Your task to perform on an android device: open app "Life360: Find Family & Friends" (install if not already installed) and enter user name: "gusts@gmail.com" and password: "assurers" Image 0: 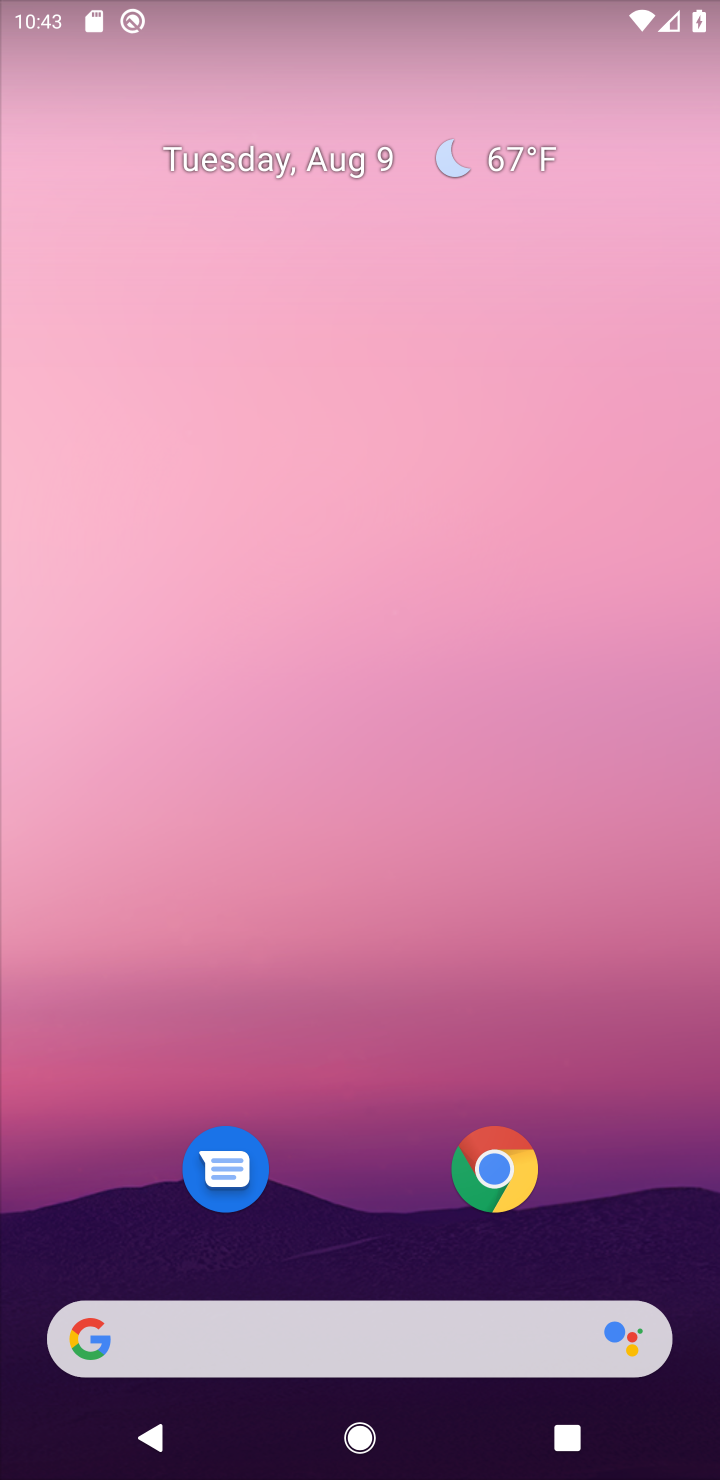
Step 0: press home button
Your task to perform on an android device: open app "Life360: Find Family & Friends" (install if not already installed) and enter user name: "gusts@gmail.com" and password: "assurers" Image 1: 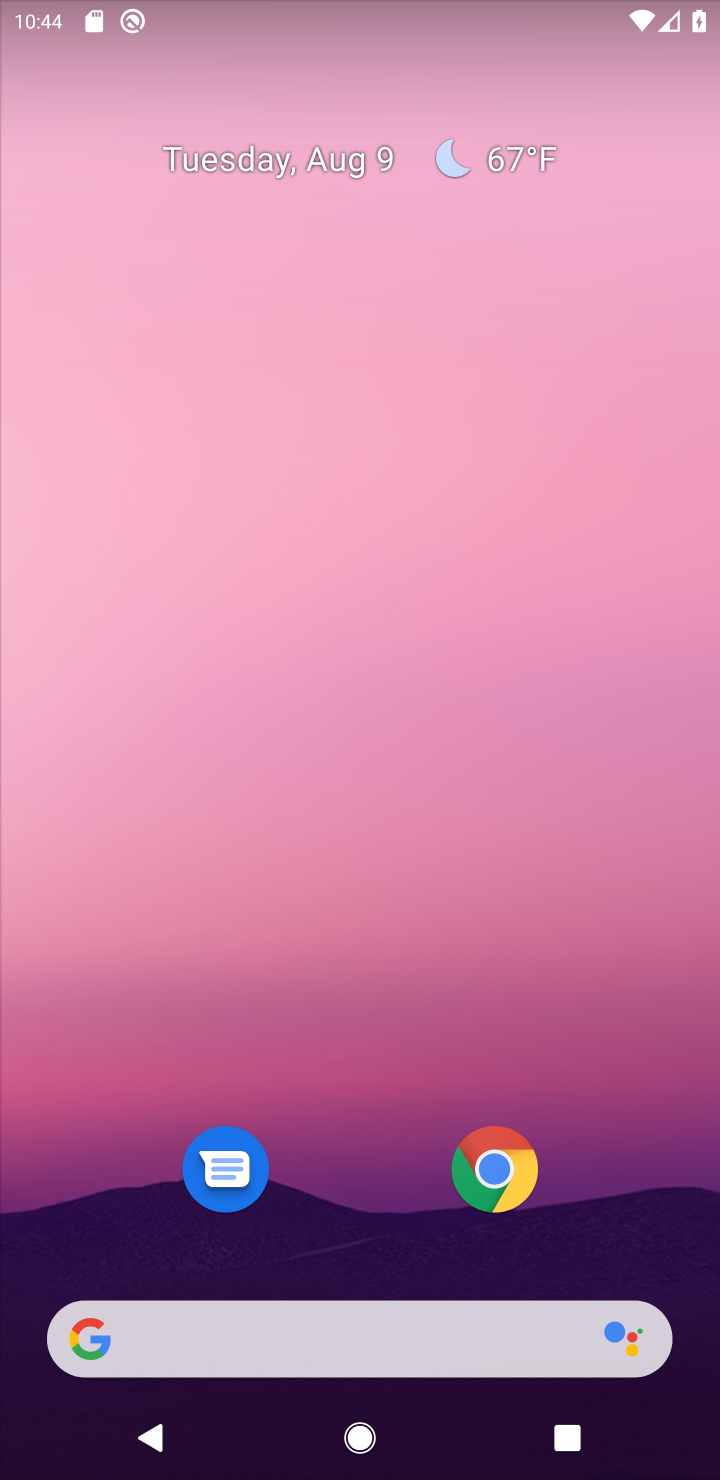
Step 1: drag from (366, 1216) to (463, 91)
Your task to perform on an android device: open app "Life360: Find Family & Friends" (install if not already installed) and enter user name: "gusts@gmail.com" and password: "assurers" Image 2: 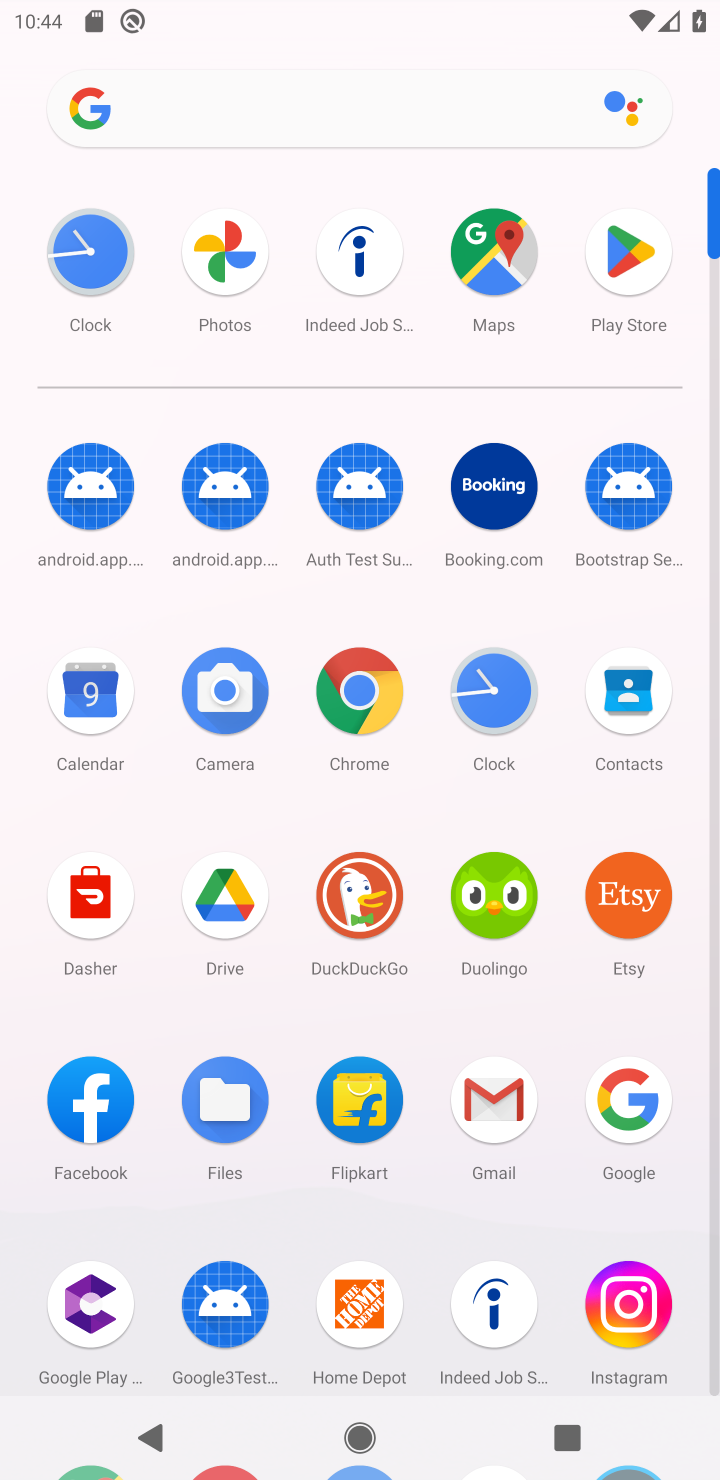
Step 2: click (643, 256)
Your task to perform on an android device: open app "Life360: Find Family & Friends" (install if not already installed) and enter user name: "gusts@gmail.com" and password: "assurers" Image 3: 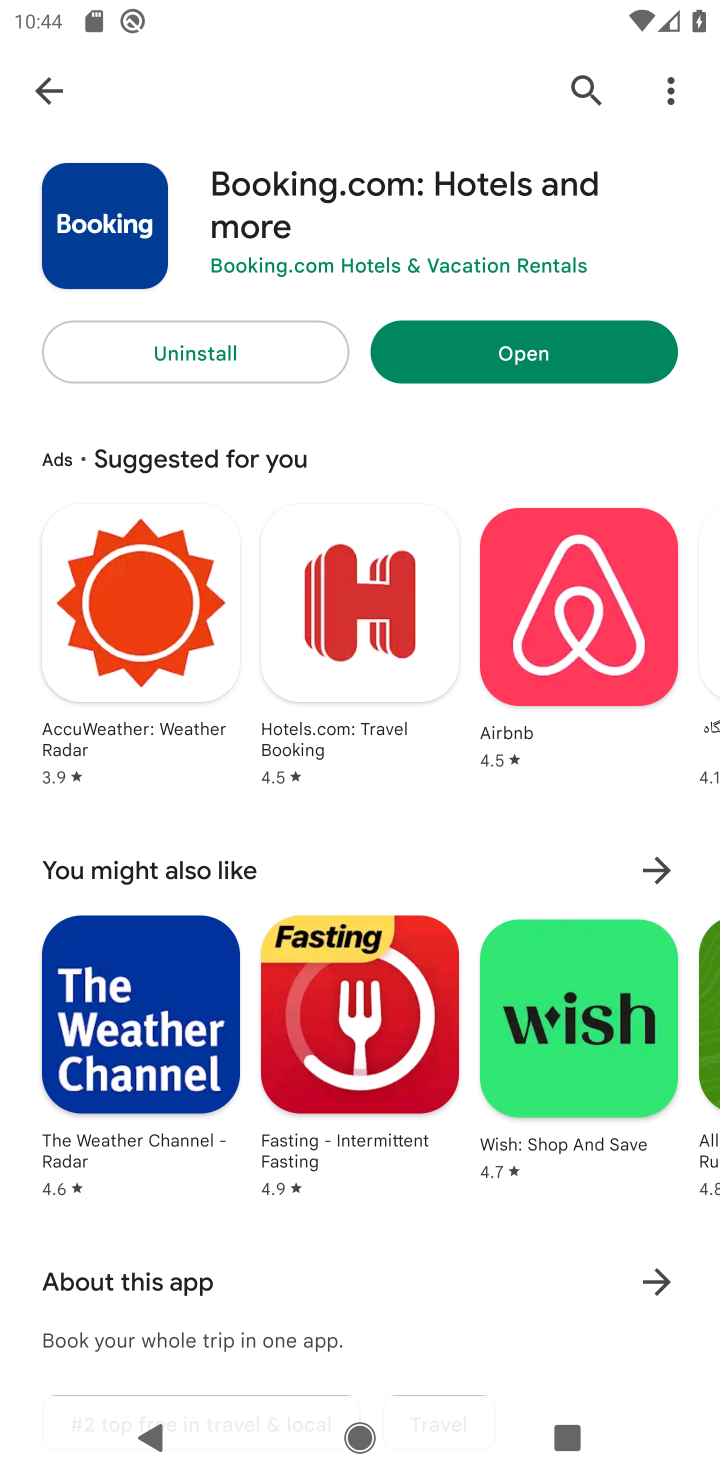
Step 3: click (588, 81)
Your task to perform on an android device: open app "Life360: Find Family & Friends" (install if not already installed) and enter user name: "gusts@gmail.com" and password: "assurers" Image 4: 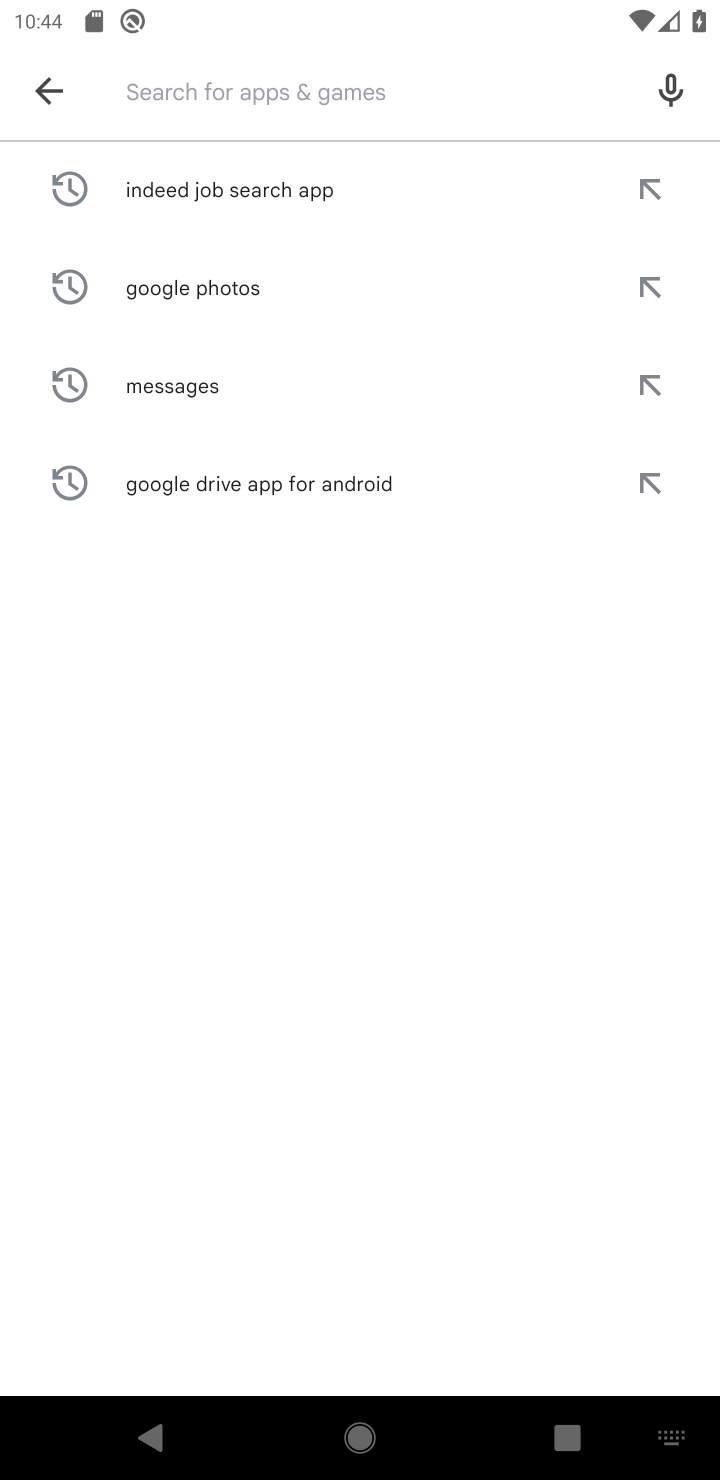
Step 4: click (355, 89)
Your task to perform on an android device: open app "Life360: Find Family & Friends" (install if not already installed) and enter user name: "gusts@gmail.com" and password: "assurers" Image 5: 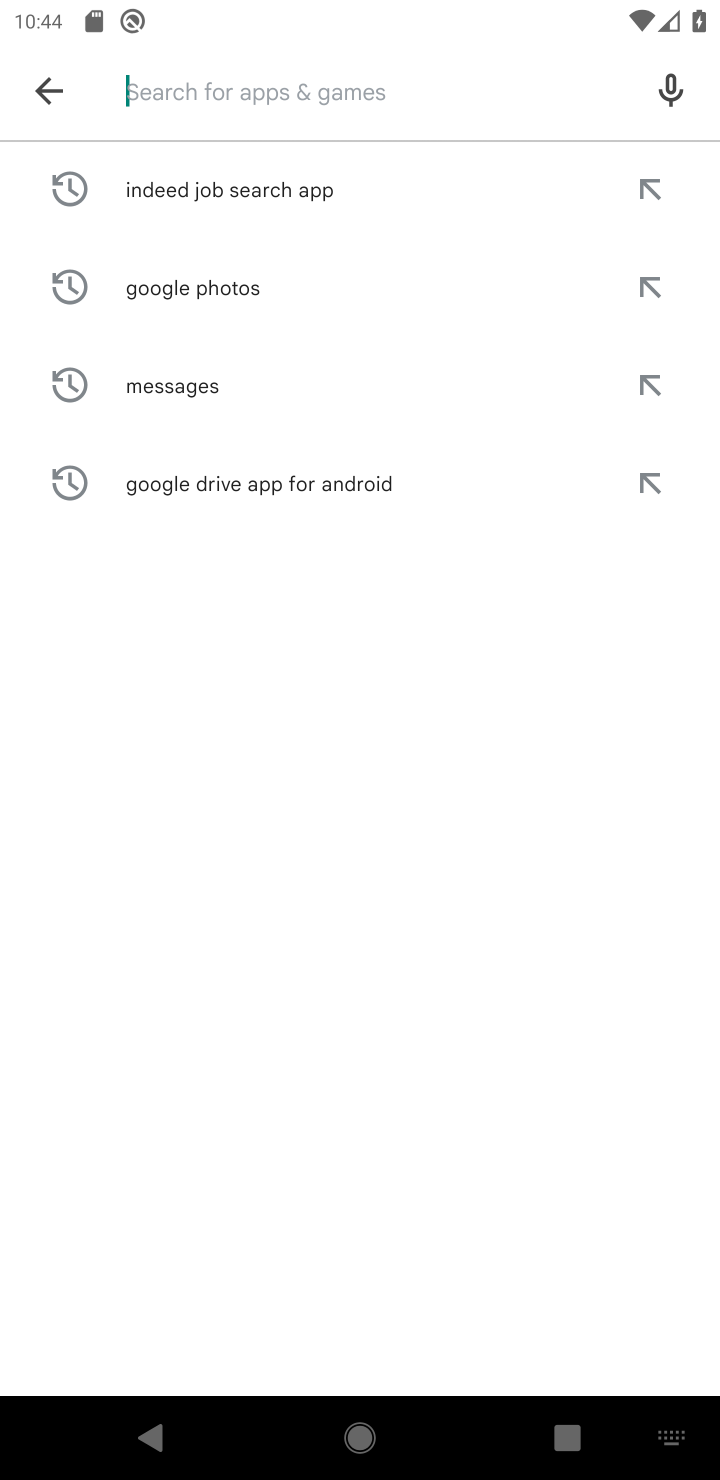
Step 5: type "Life360: Find Family & Friends"
Your task to perform on an android device: open app "Life360: Find Family & Friends" (install if not already installed) and enter user name: "gusts@gmail.com" and password: "assurers" Image 6: 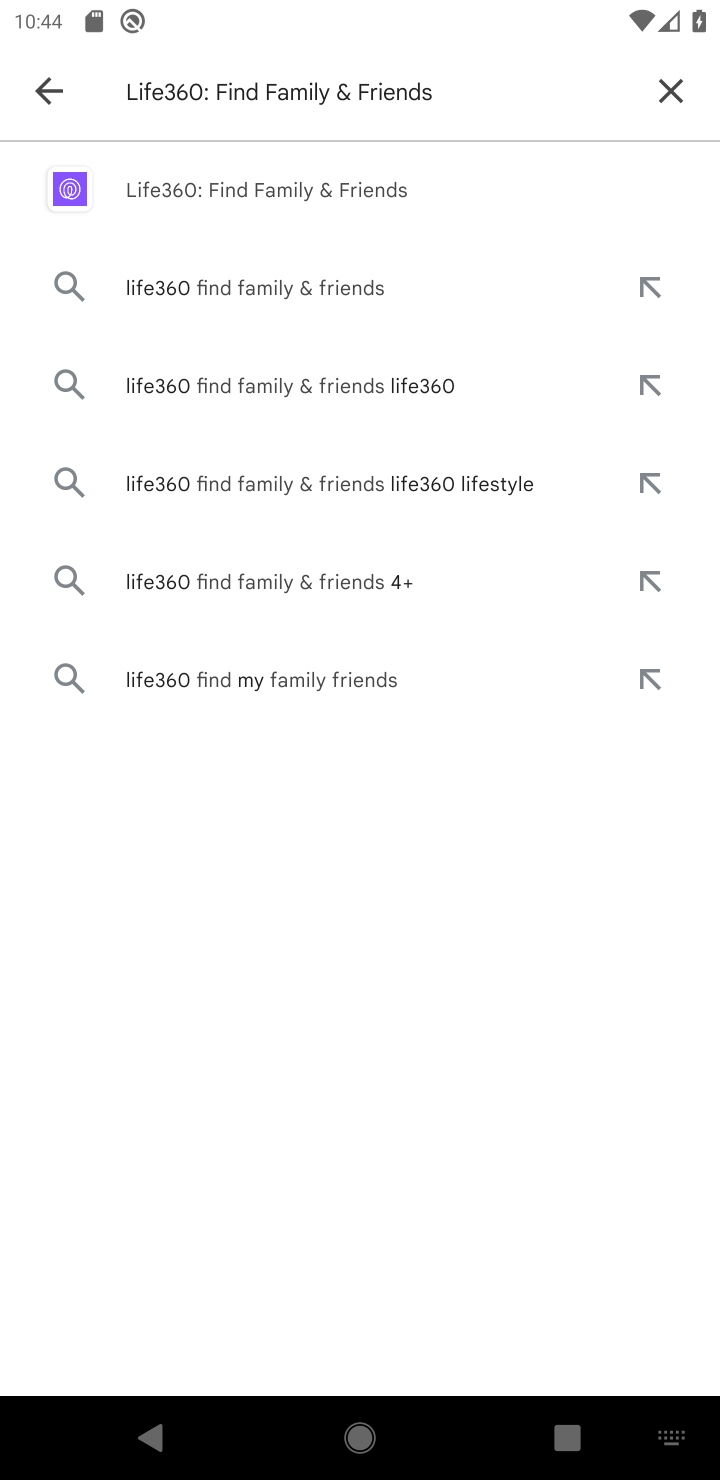
Step 6: click (415, 199)
Your task to perform on an android device: open app "Life360: Find Family & Friends" (install if not already installed) and enter user name: "gusts@gmail.com" and password: "assurers" Image 7: 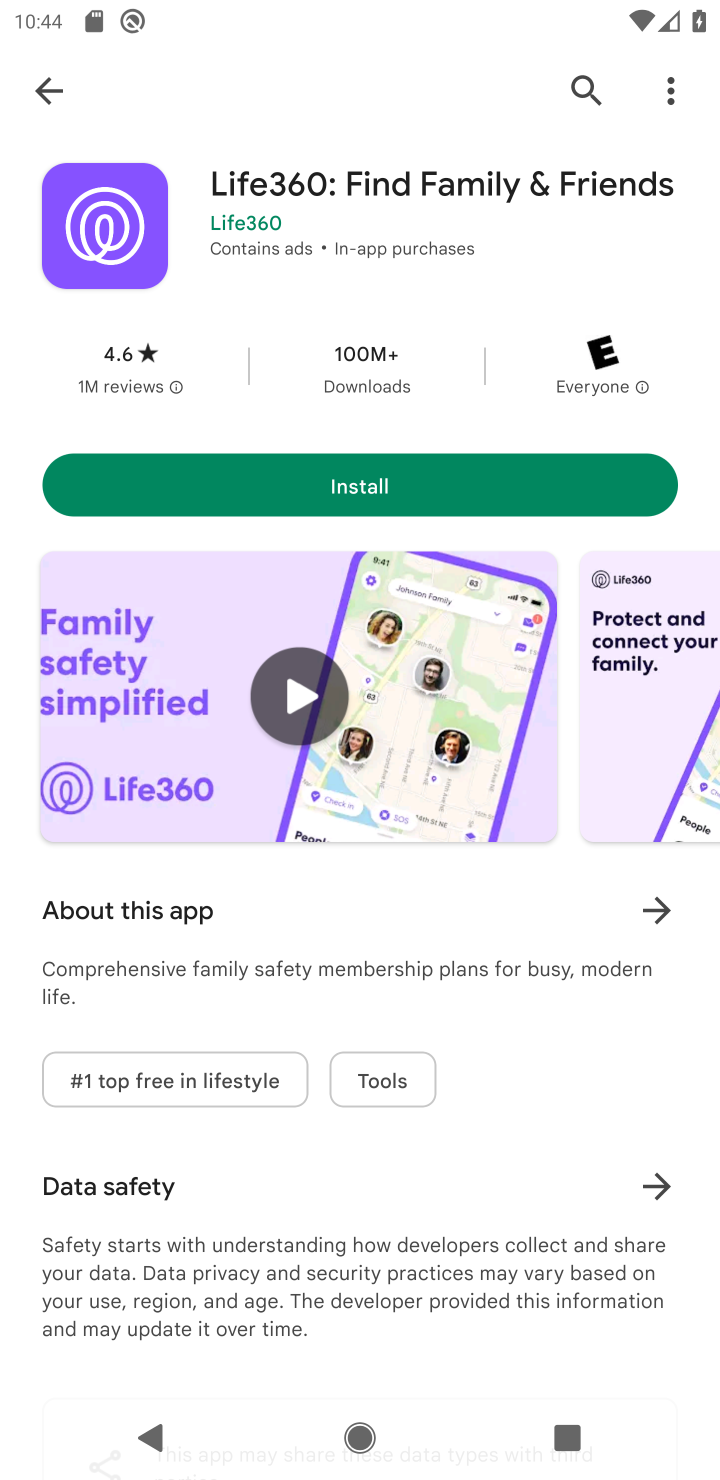
Step 7: click (403, 485)
Your task to perform on an android device: open app "Life360: Find Family & Friends" (install if not already installed) and enter user name: "gusts@gmail.com" and password: "assurers" Image 8: 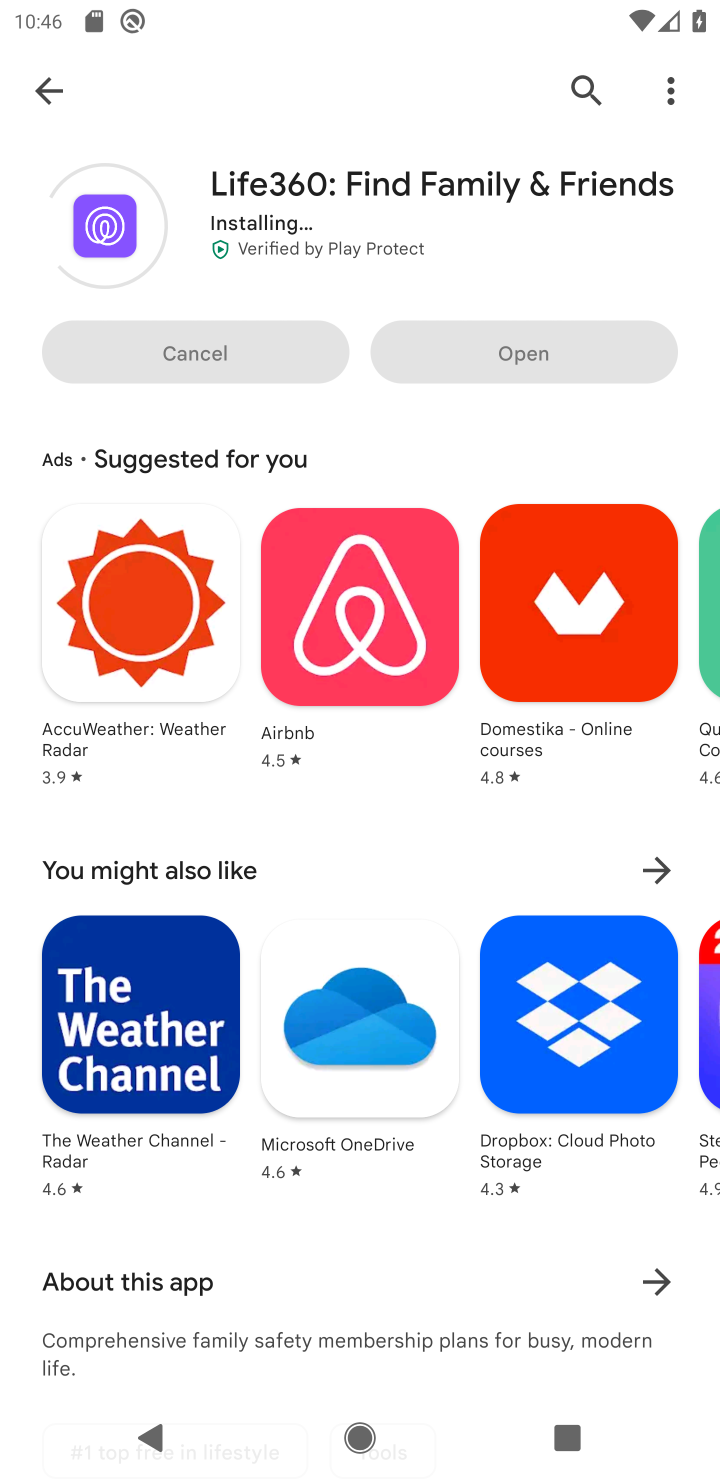
Step 8: click (573, 90)
Your task to perform on an android device: open app "Life360: Find Family & Friends" (install if not already installed) and enter user name: "gusts@gmail.com" and password: "assurers" Image 9: 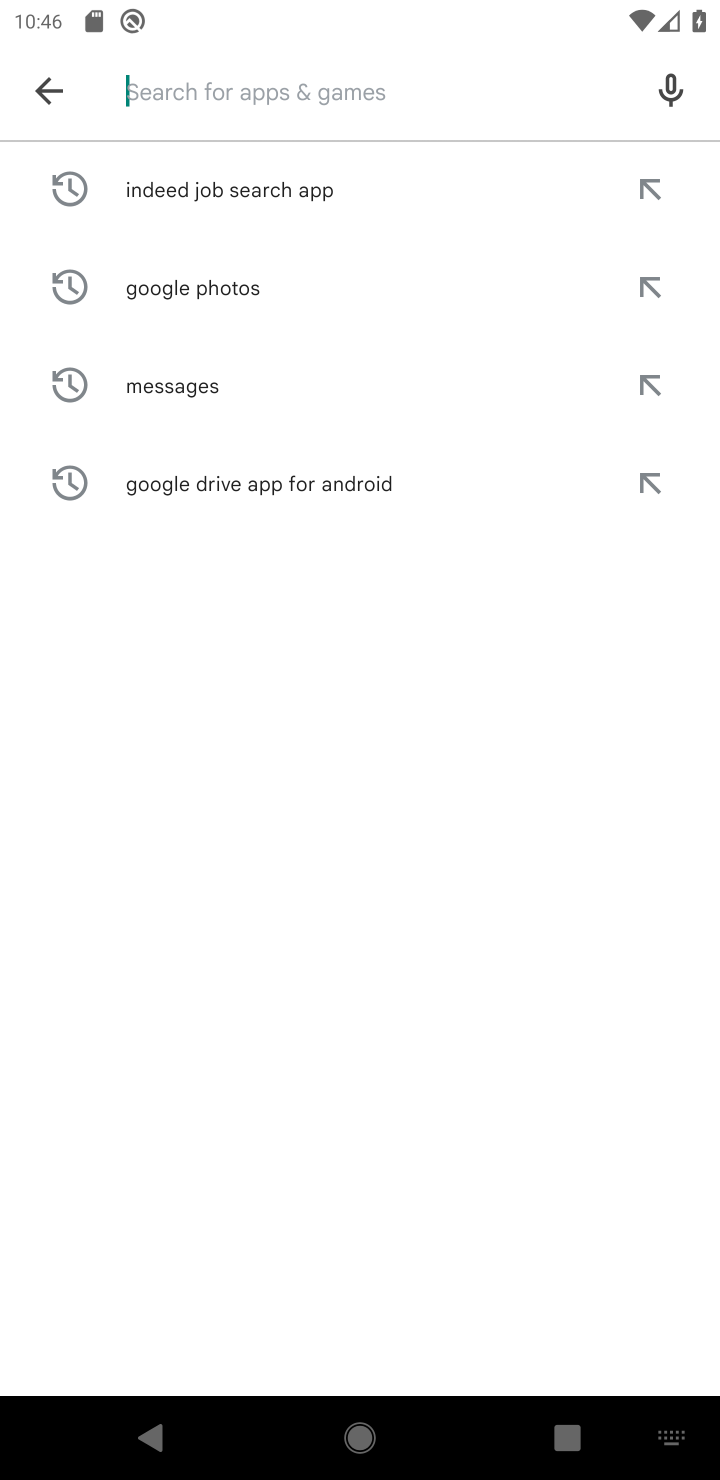
Step 9: click (338, 89)
Your task to perform on an android device: open app "Life360: Find Family & Friends" (install if not already installed) and enter user name: "gusts@gmail.com" and password: "assurers" Image 10: 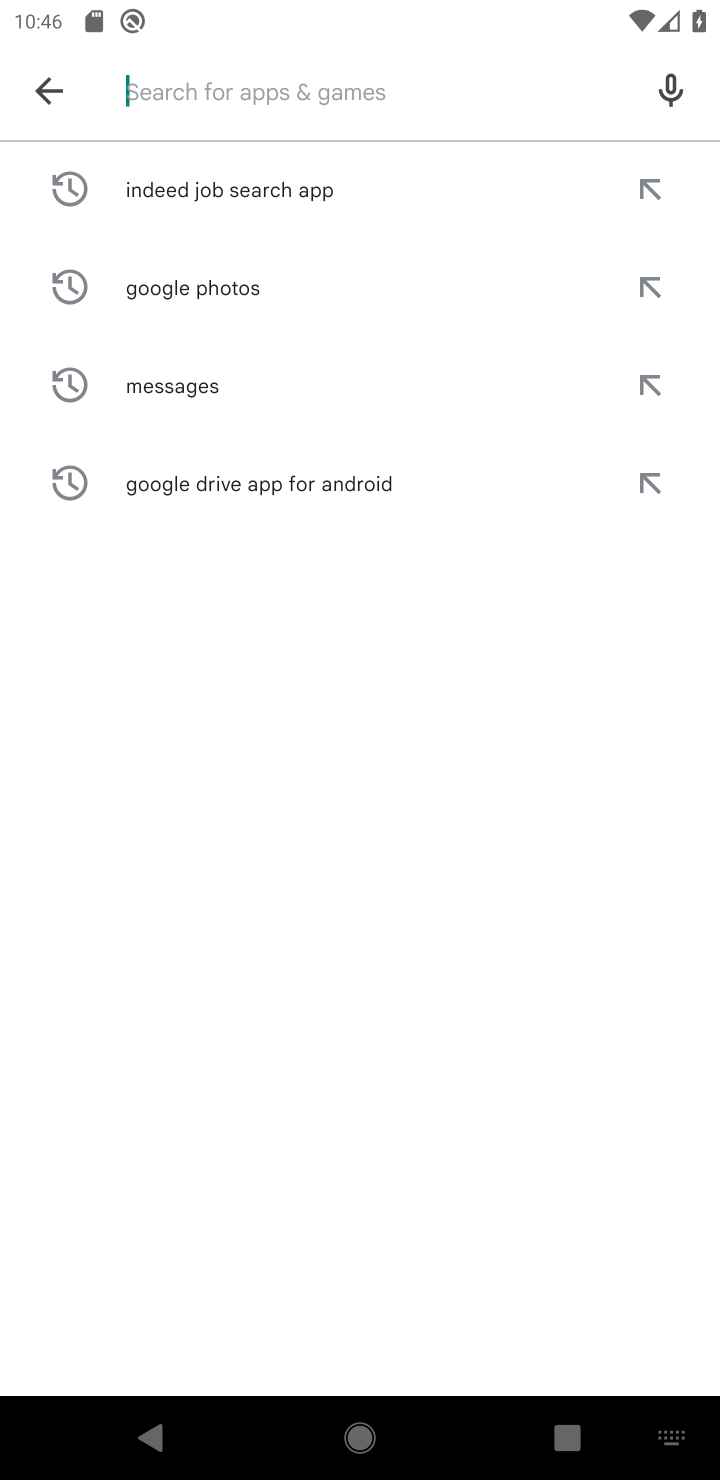
Step 10: type "Life360: Find Family & Friends"
Your task to perform on an android device: open app "Life360: Find Family & Friends" (install if not already installed) and enter user name: "gusts@gmail.com" and password: "assurers" Image 11: 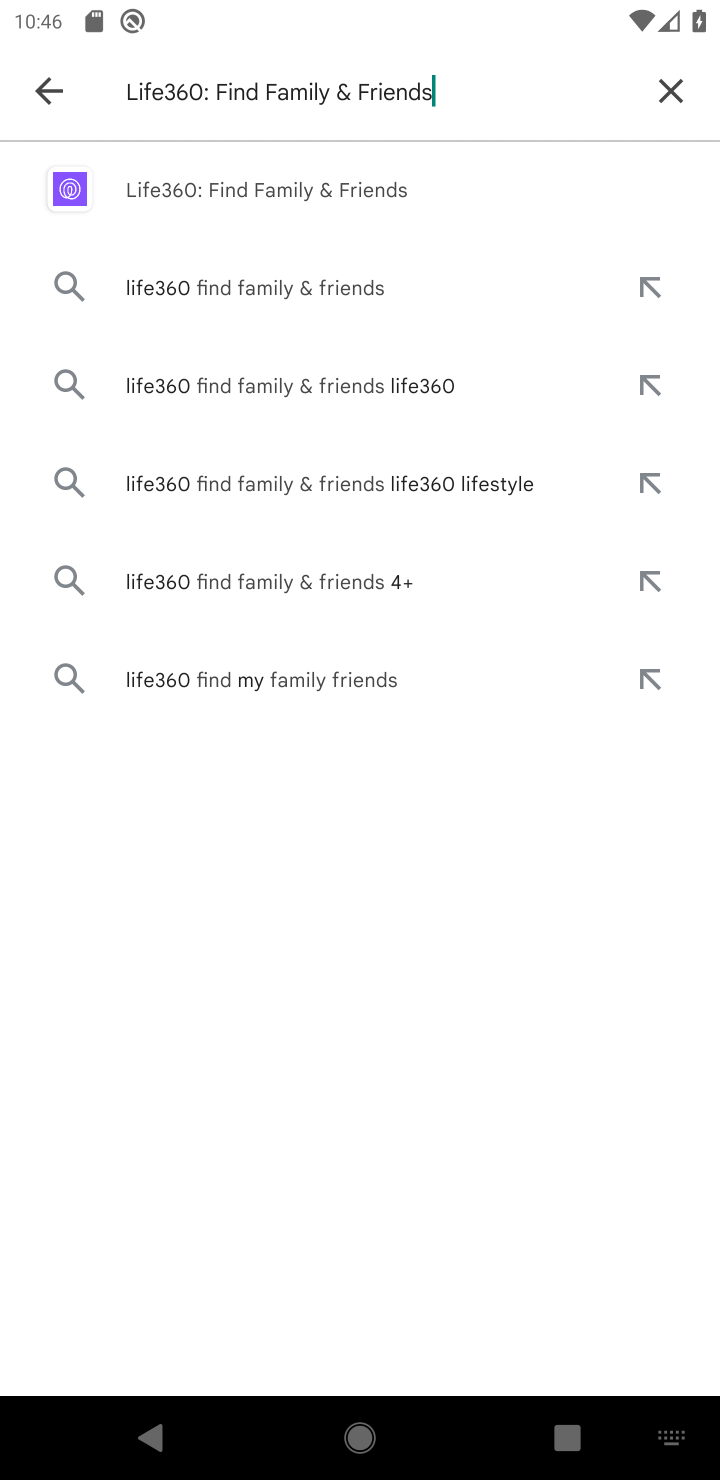
Step 11: click (324, 181)
Your task to perform on an android device: open app "Life360: Find Family & Friends" (install if not already installed) and enter user name: "gusts@gmail.com" and password: "assurers" Image 12: 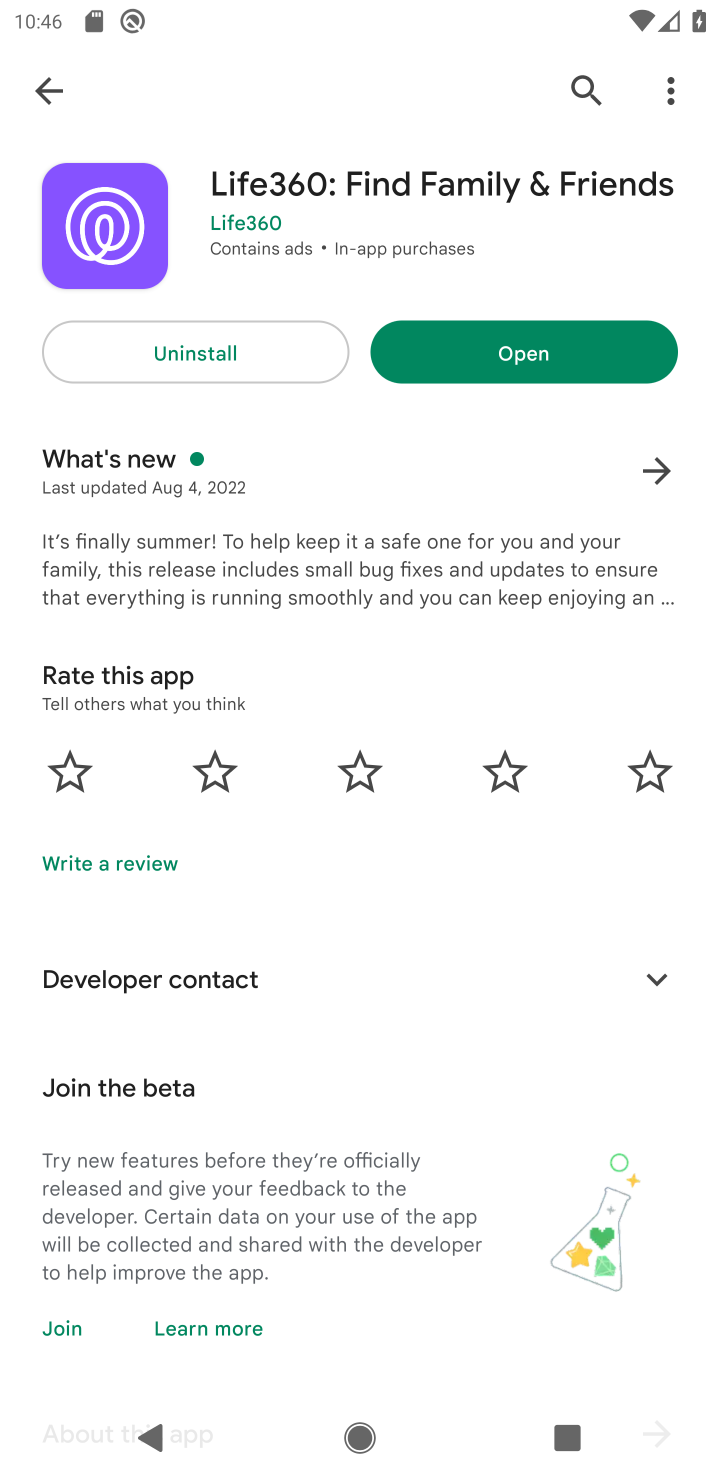
Step 12: click (549, 356)
Your task to perform on an android device: open app "Life360: Find Family & Friends" (install if not already installed) and enter user name: "gusts@gmail.com" and password: "assurers" Image 13: 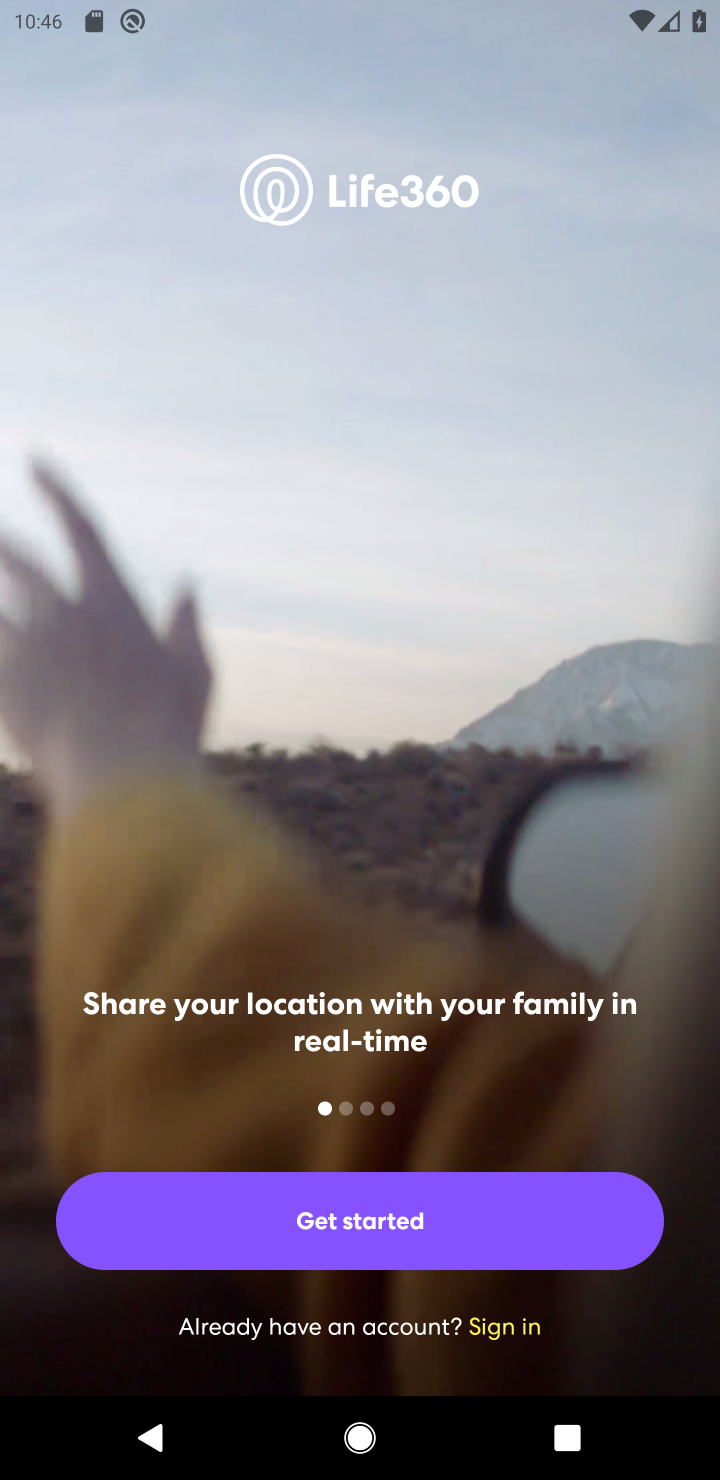
Step 13: click (511, 1333)
Your task to perform on an android device: open app "Life360: Find Family & Friends" (install if not already installed) and enter user name: "gusts@gmail.com" and password: "assurers" Image 14: 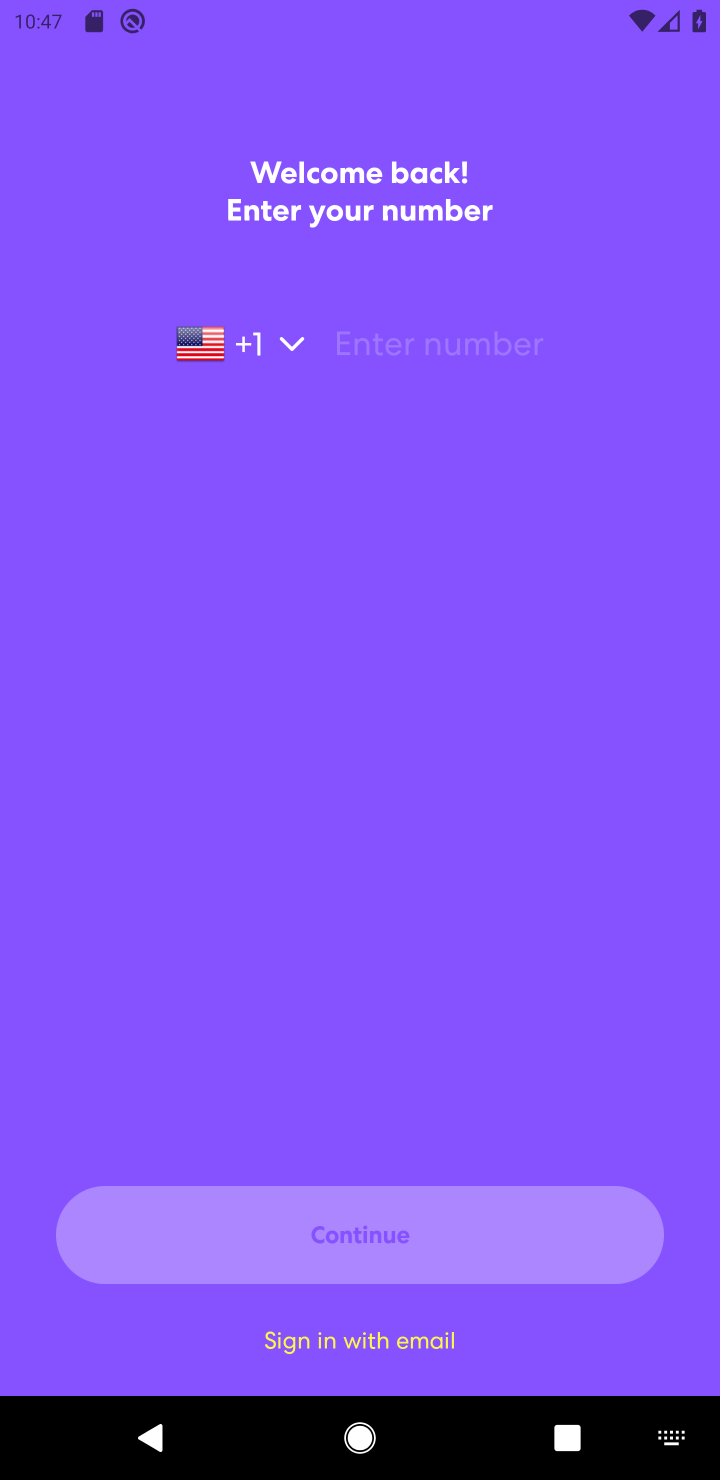
Step 14: click (382, 1339)
Your task to perform on an android device: open app "Life360: Find Family & Friends" (install if not already installed) and enter user name: "gusts@gmail.com" and password: "assurers" Image 15: 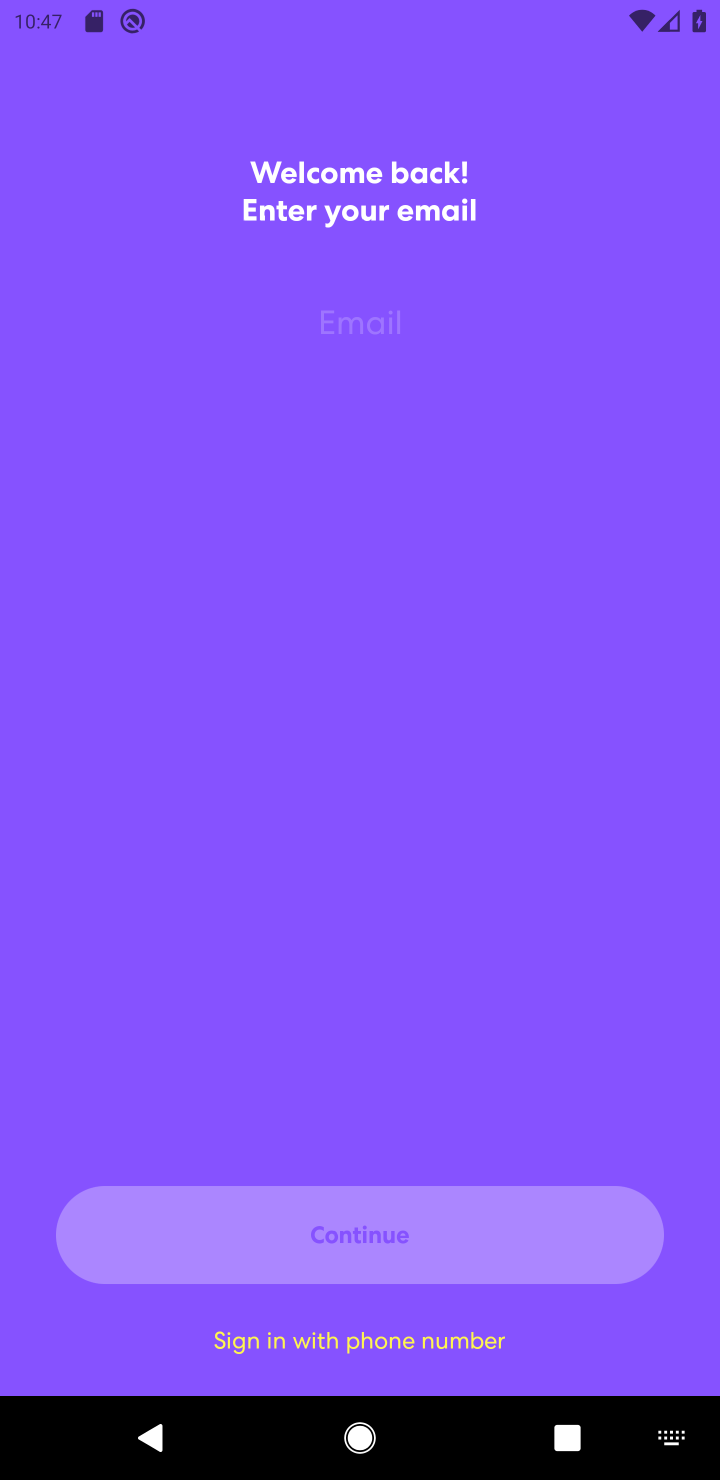
Step 15: type "gusts@gmail.com"
Your task to perform on an android device: open app "Life360: Find Family & Friends" (install if not already installed) and enter user name: "gusts@gmail.com" and password: "assurers" Image 16: 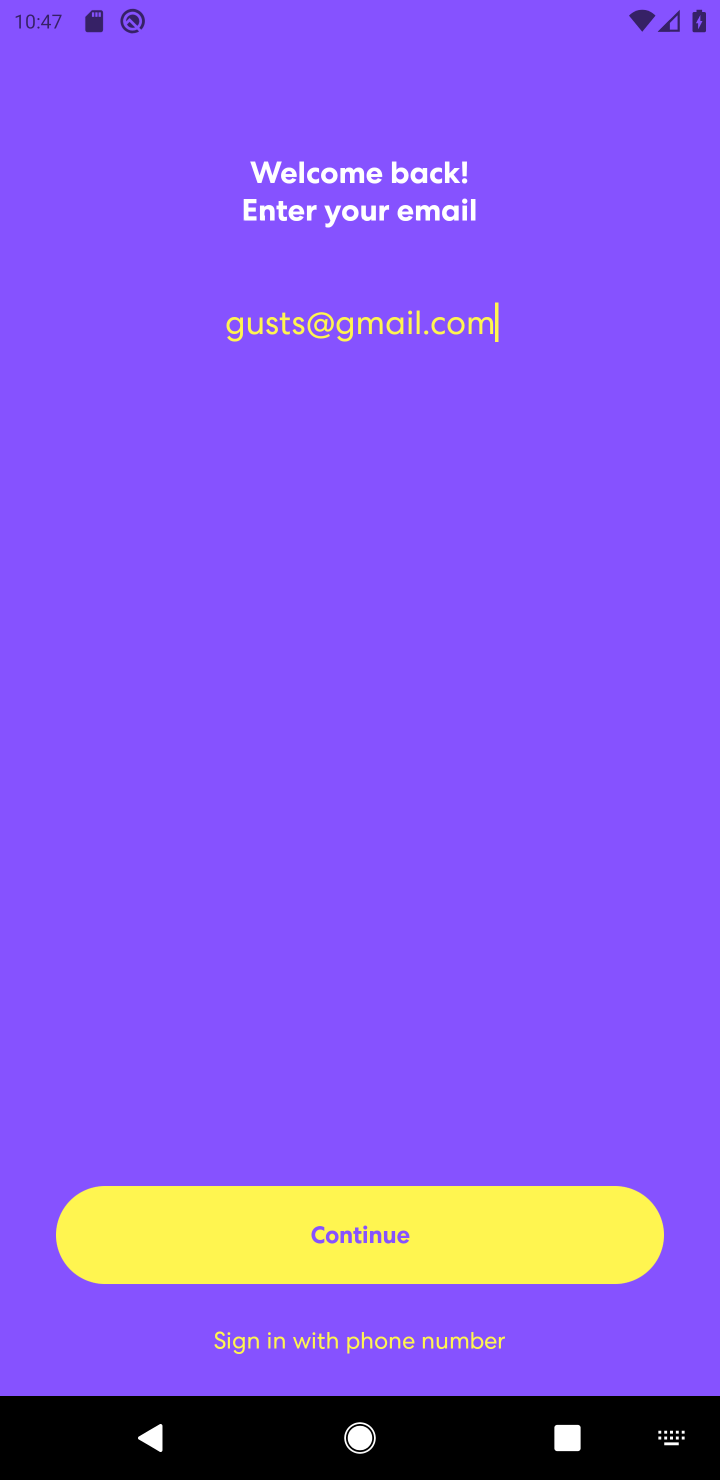
Step 16: press enter
Your task to perform on an android device: open app "Life360: Find Family & Friends" (install if not already installed) and enter user name: "gusts@gmail.com" and password: "assurers" Image 17: 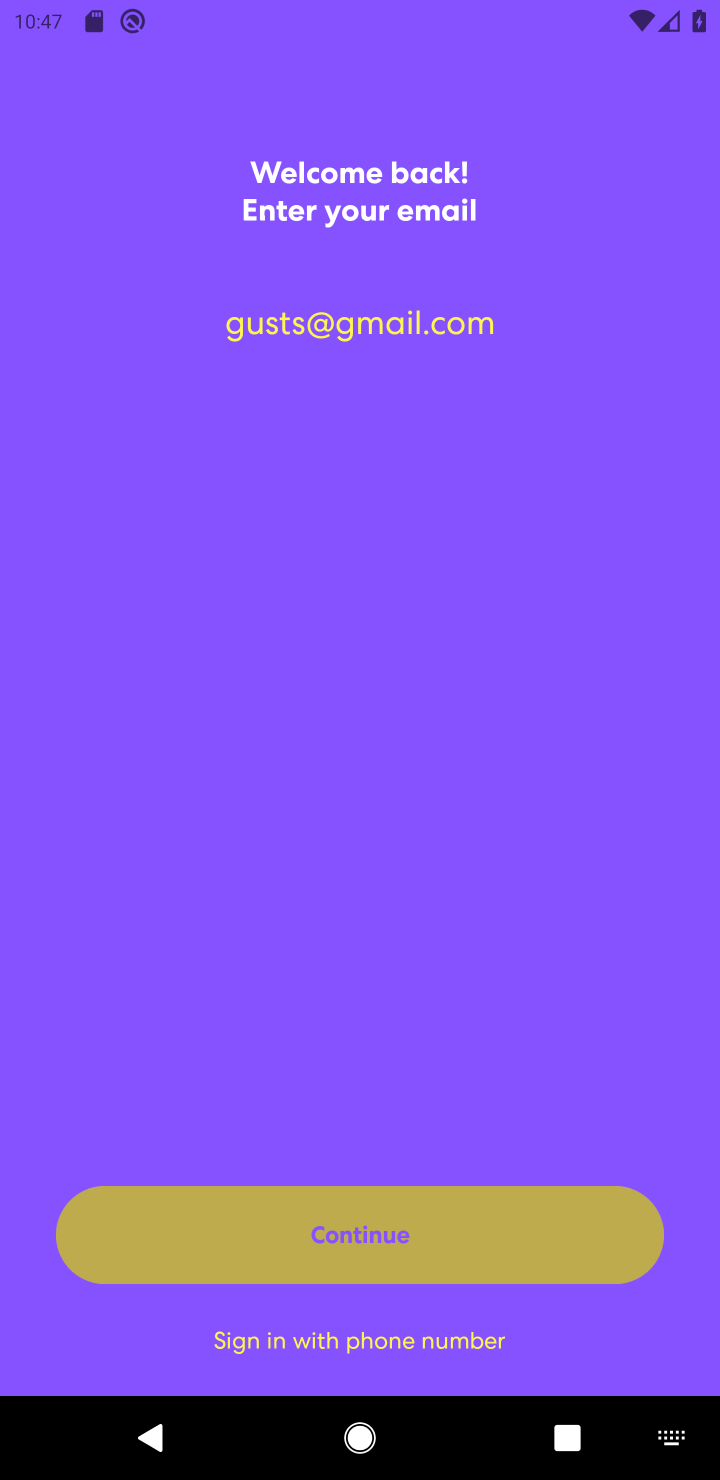
Step 17: click (471, 1245)
Your task to perform on an android device: open app "Life360: Find Family & Friends" (install if not already installed) and enter user name: "gusts@gmail.com" and password: "assurers" Image 18: 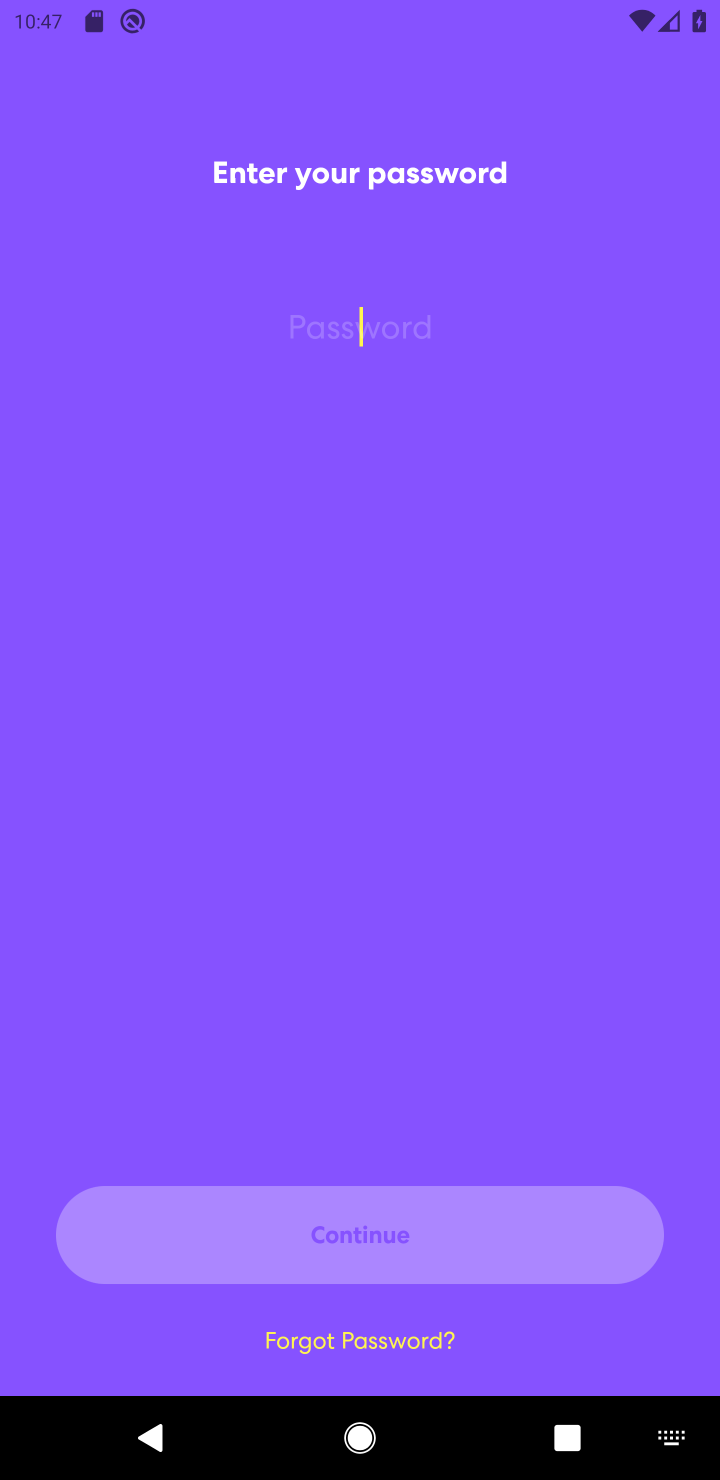
Step 18: type "assurers"
Your task to perform on an android device: open app "Life360: Find Family & Friends" (install if not already installed) and enter user name: "gusts@gmail.com" and password: "assurers" Image 19: 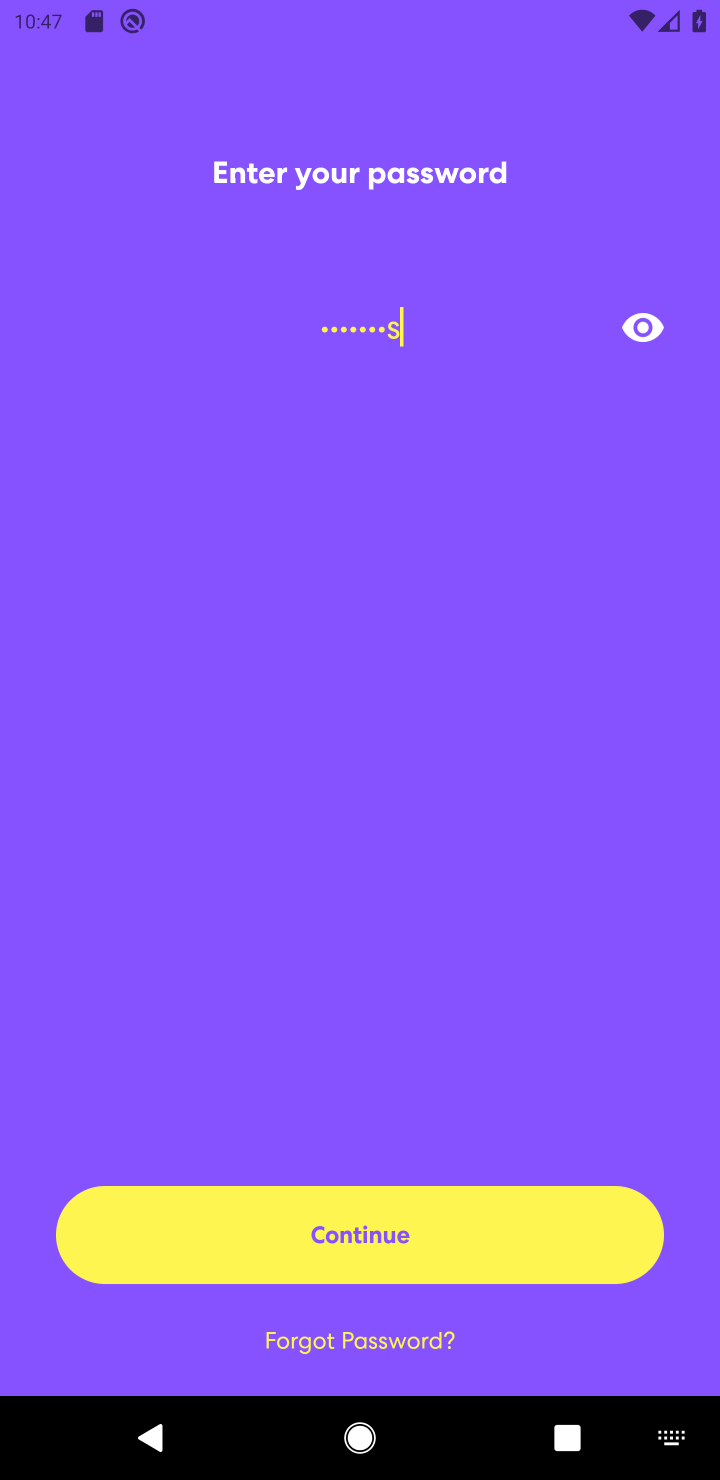
Step 19: press enter
Your task to perform on an android device: open app "Life360: Find Family & Friends" (install if not already installed) and enter user name: "gusts@gmail.com" and password: "assurers" Image 20: 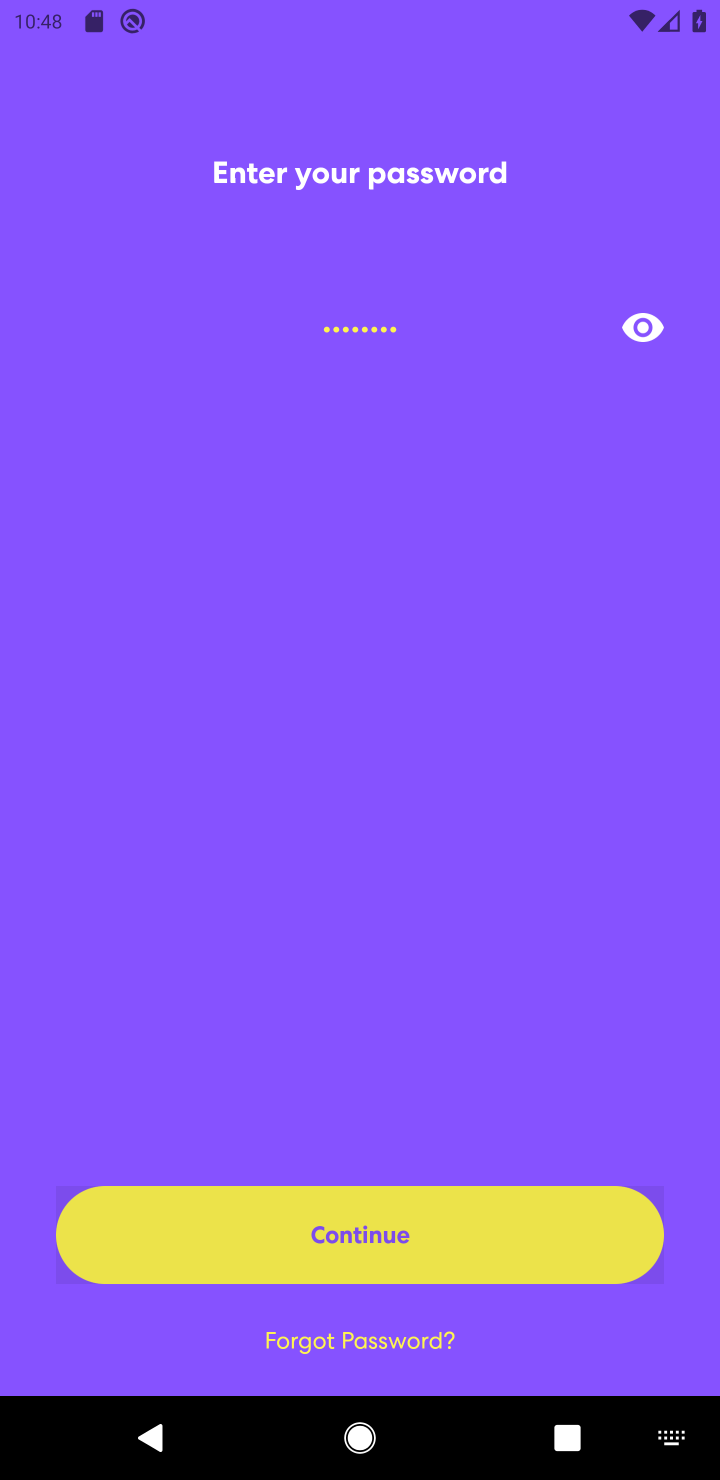
Step 20: task complete